Your task to perform on an android device: search for starred emails in the gmail app Image 0: 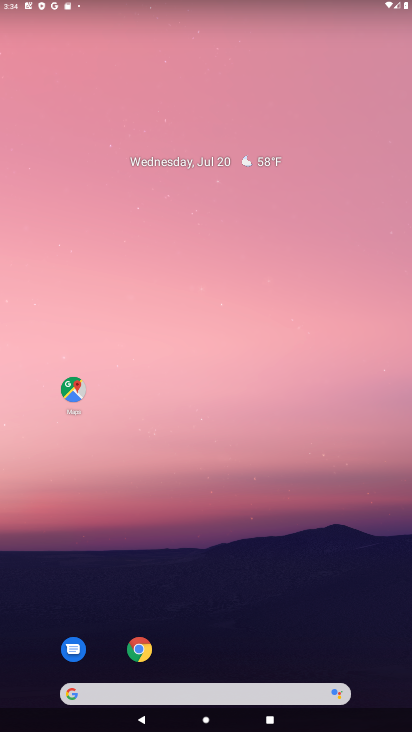
Step 0: drag from (239, 723) to (218, 264)
Your task to perform on an android device: search for starred emails in the gmail app Image 1: 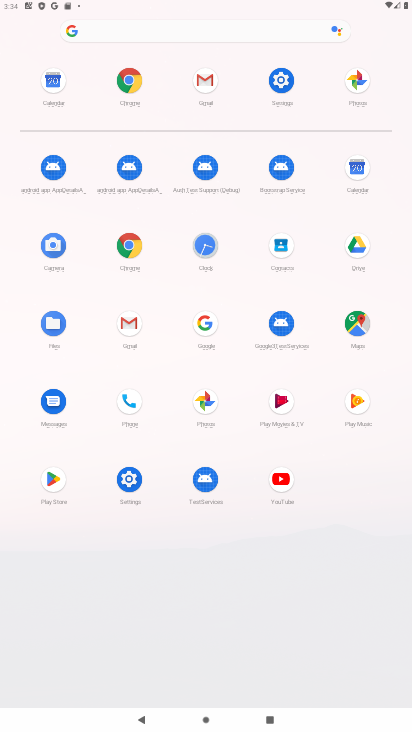
Step 1: click (130, 321)
Your task to perform on an android device: search for starred emails in the gmail app Image 2: 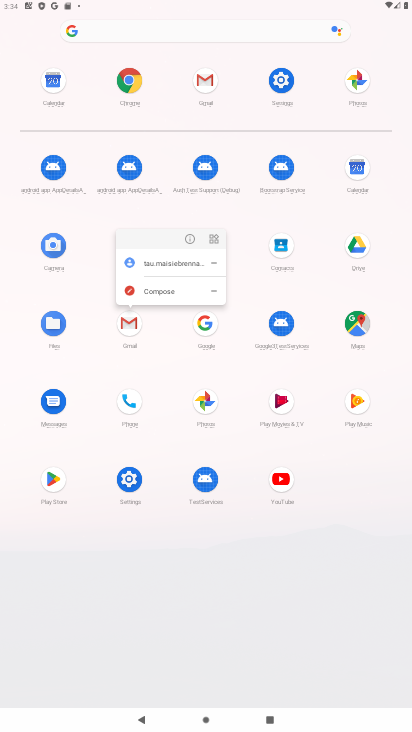
Step 2: click (130, 321)
Your task to perform on an android device: search for starred emails in the gmail app Image 3: 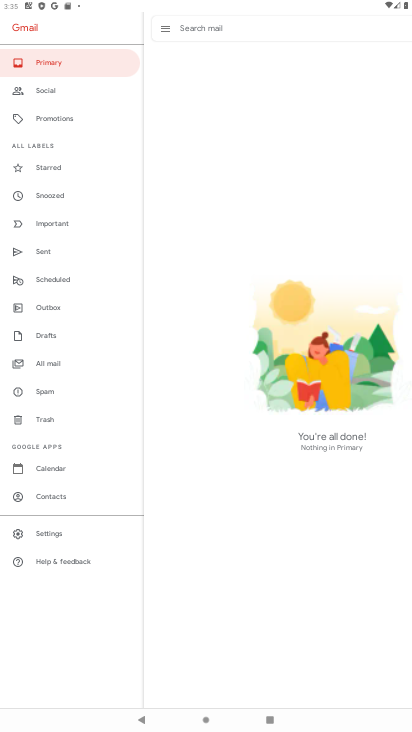
Step 3: click (50, 168)
Your task to perform on an android device: search for starred emails in the gmail app Image 4: 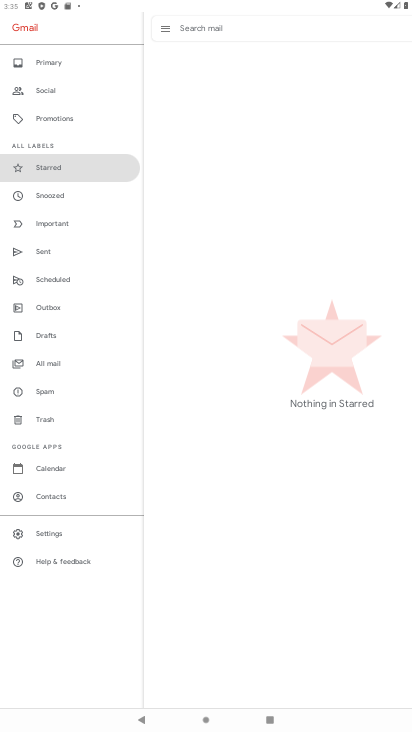
Step 4: task complete